Your task to perform on an android device: delete the emails in spam in the gmail app Image 0: 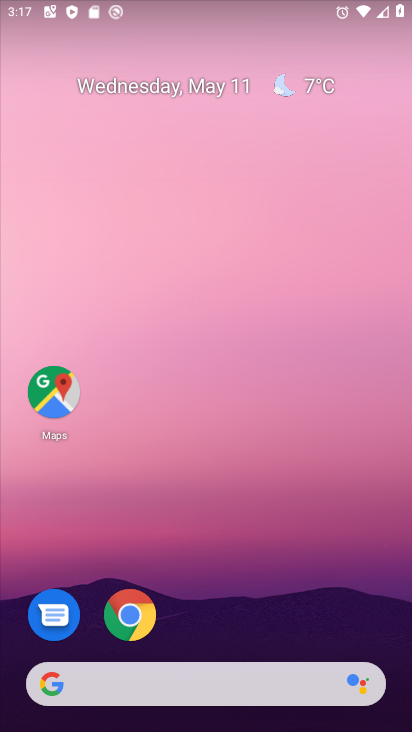
Step 0: drag from (292, 557) to (241, 56)
Your task to perform on an android device: delete the emails in spam in the gmail app Image 1: 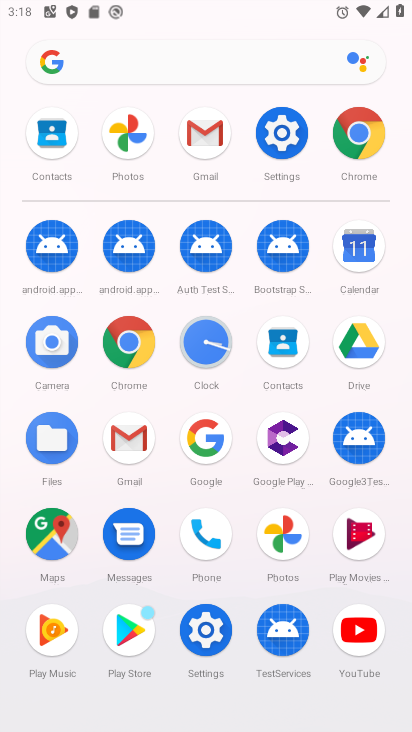
Step 1: click (116, 445)
Your task to perform on an android device: delete the emails in spam in the gmail app Image 2: 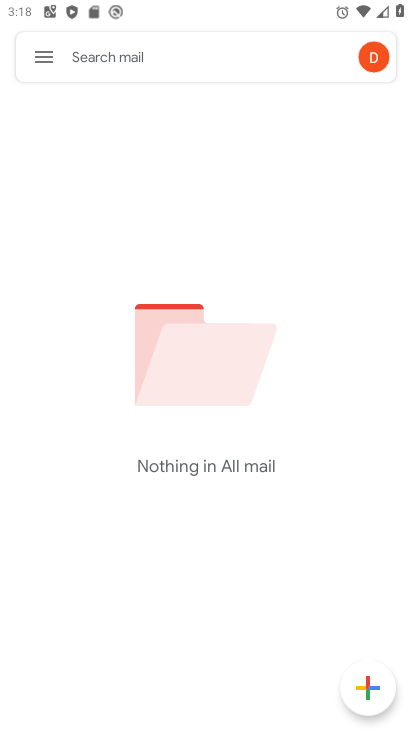
Step 2: click (34, 59)
Your task to perform on an android device: delete the emails in spam in the gmail app Image 3: 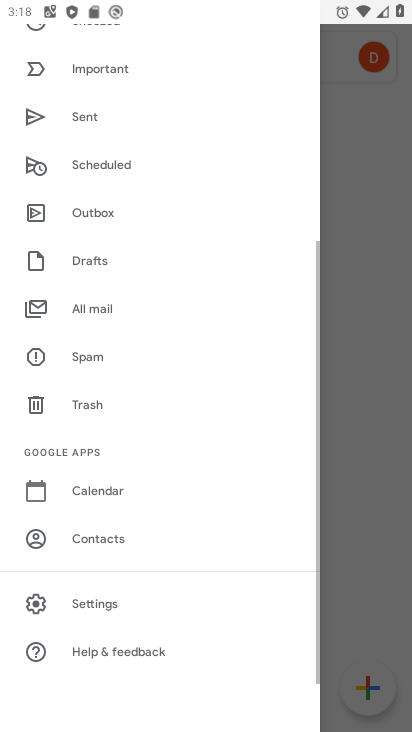
Step 3: click (82, 358)
Your task to perform on an android device: delete the emails in spam in the gmail app Image 4: 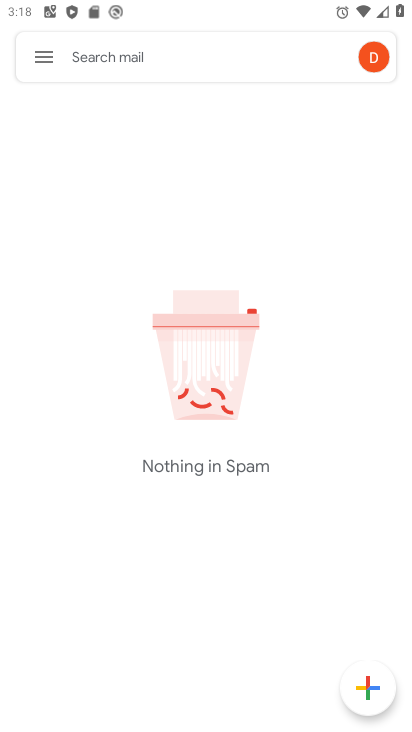
Step 4: task complete